Your task to perform on an android device: turn on location history Image 0: 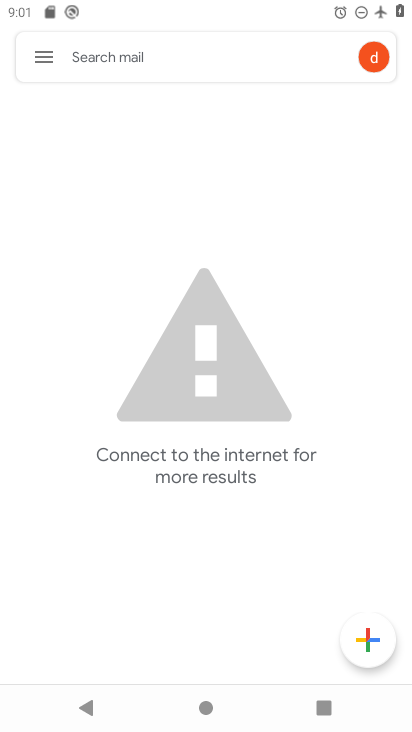
Step 0: press home button
Your task to perform on an android device: turn on location history Image 1: 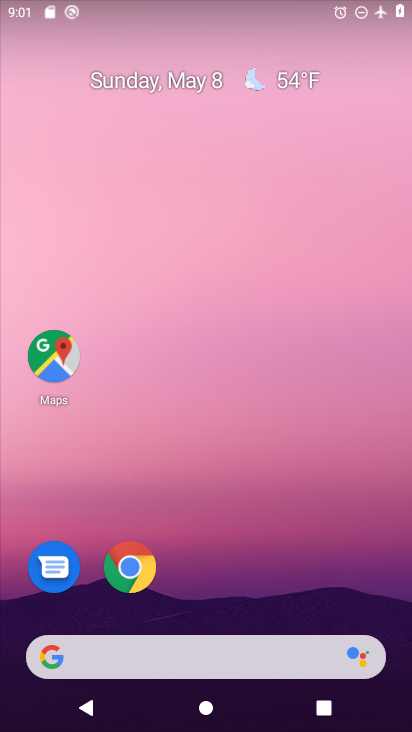
Step 1: drag from (344, 557) to (408, 30)
Your task to perform on an android device: turn on location history Image 2: 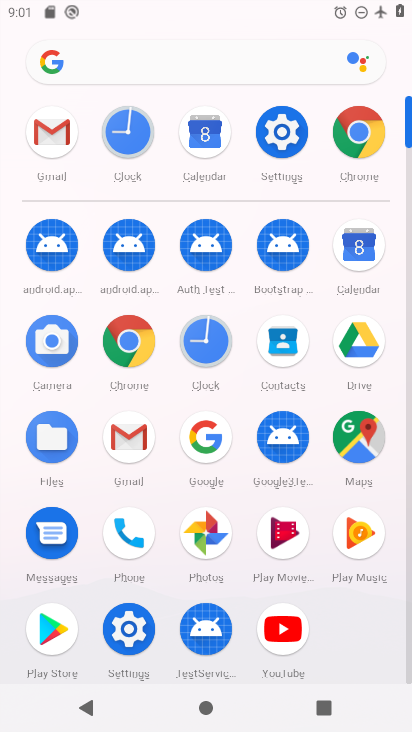
Step 2: click (283, 141)
Your task to perform on an android device: turn on location history Image 3: 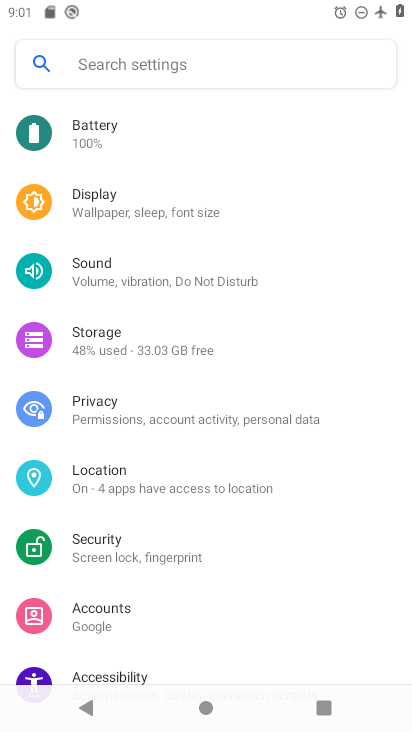
Step 3: click (99, 470)
Your task to perform on an android device: turn on location history Image 4: 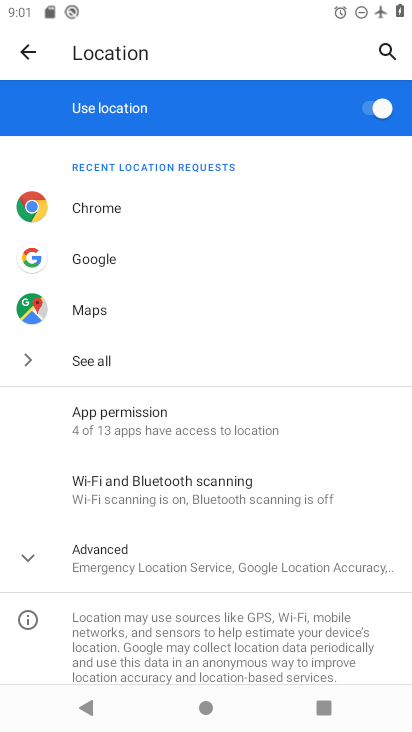
Step 4: task complete